Your task to perform on an android device: Open eBay Image 0: 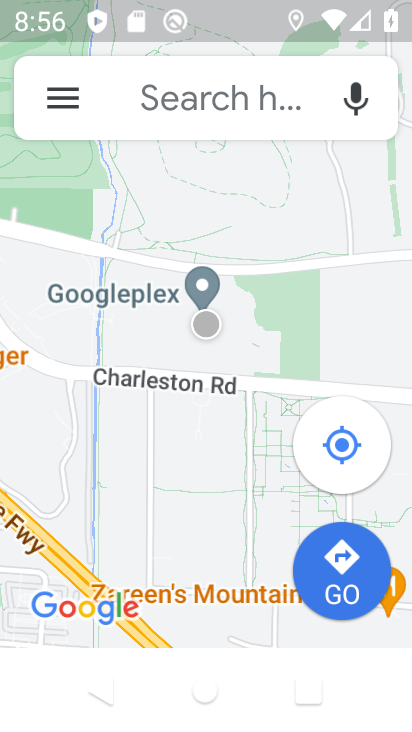
Step 0: press home button
Your task to perform on an android device: Open eBay Image 1: 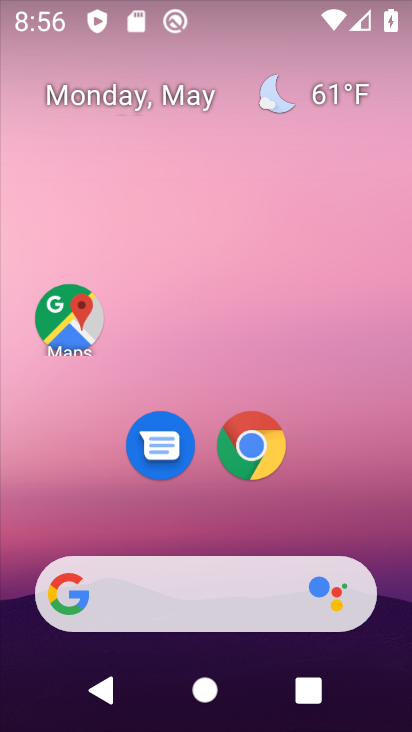
Step 1: drag from (382, 543) to (357, 137)
Your task to perform on an android device: Open eBay Image 2: 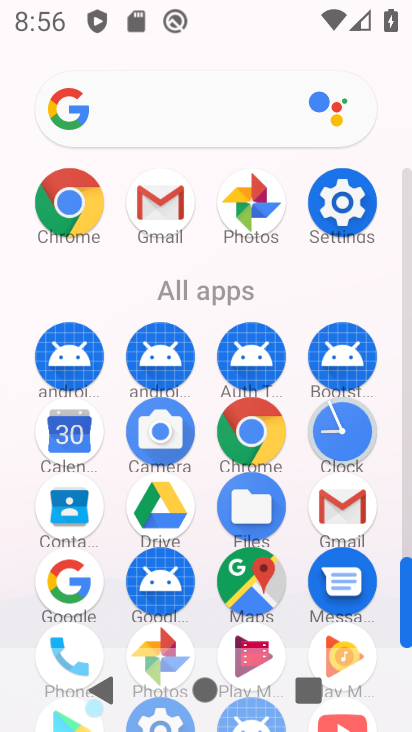
Step 2: click (245, 446)
Your task to perform on an android device: Open eBay Image 3: 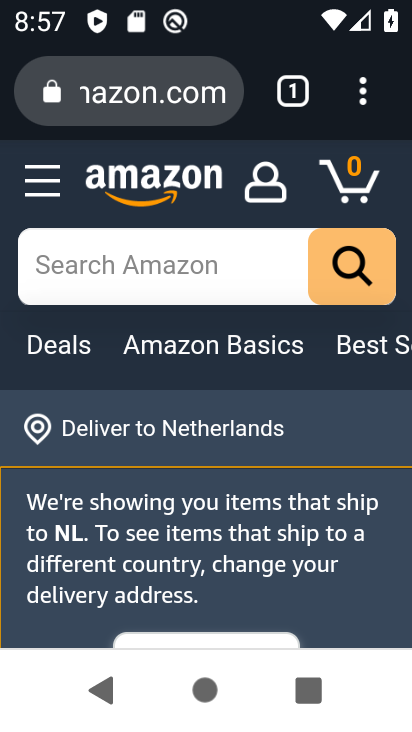
Step 3: click (193, 94)
Your task to perform on an android device: Open eBay Image 4: 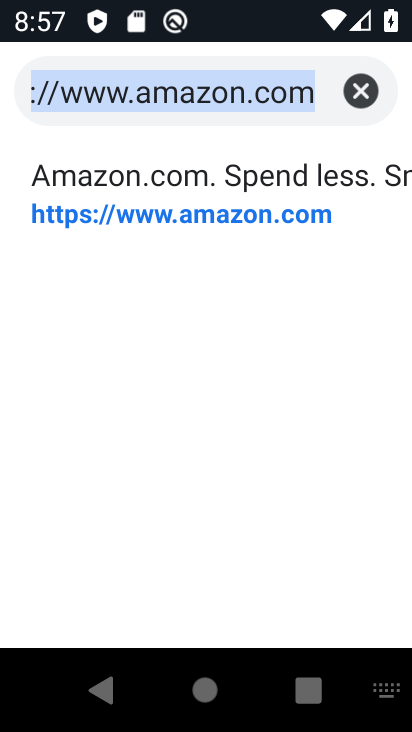
Step 4: click (371, 85)
Your task to perform on an android device: Open eBay Image 5: 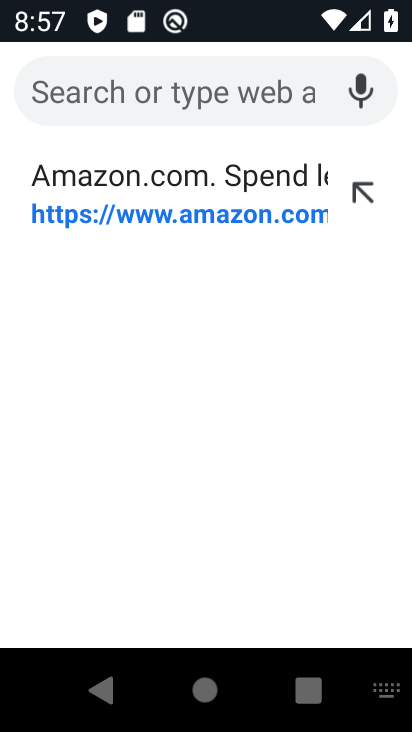
Step 5: type "ebay"
Your task to perform on an android device: Open eBay Image 6: 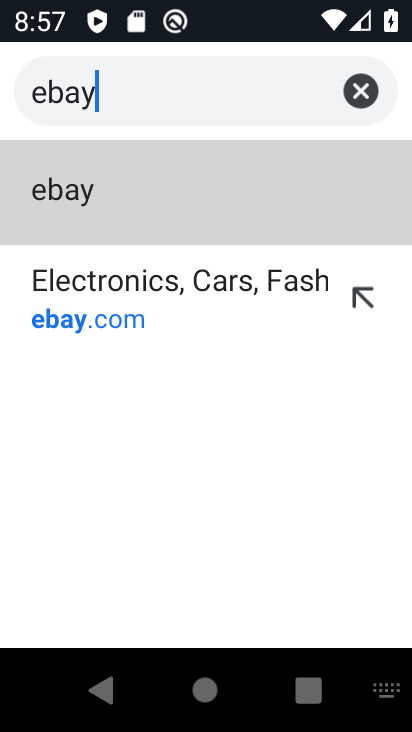
Step 6: click (222, 207)
Your task to perform on an android device: Open eBay Image 7: 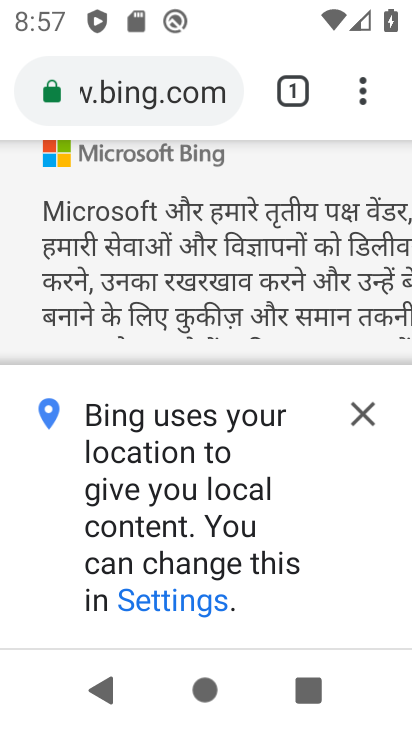
Step 7: task complete